Your task to perform on an android device: add a label to a message in the gmail app Image 0: 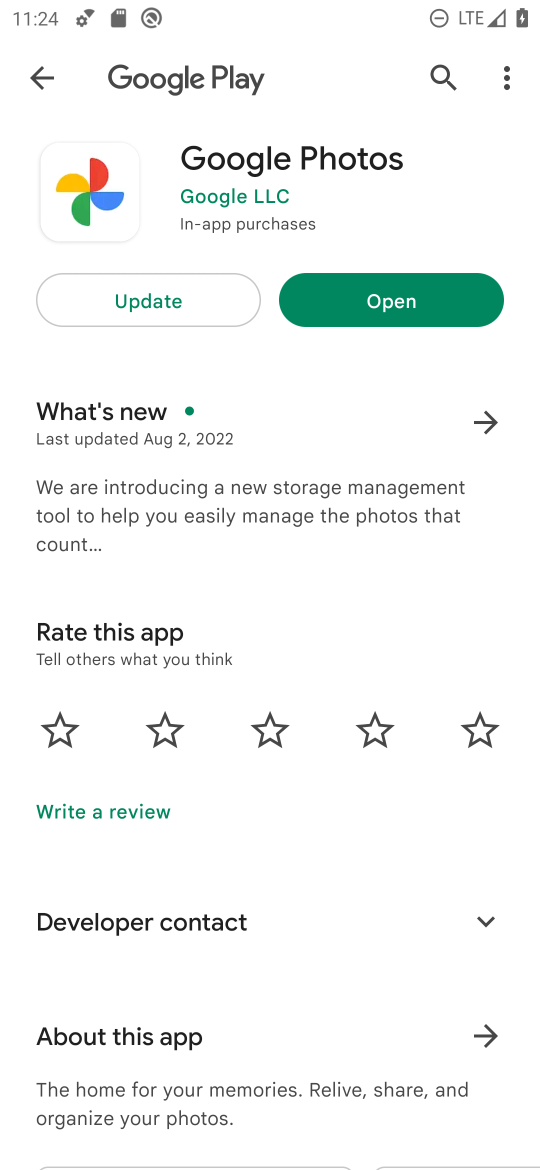
Step 0: press home button
Your task to perform on an android device: add a label to a message in the gmail app Image 1: 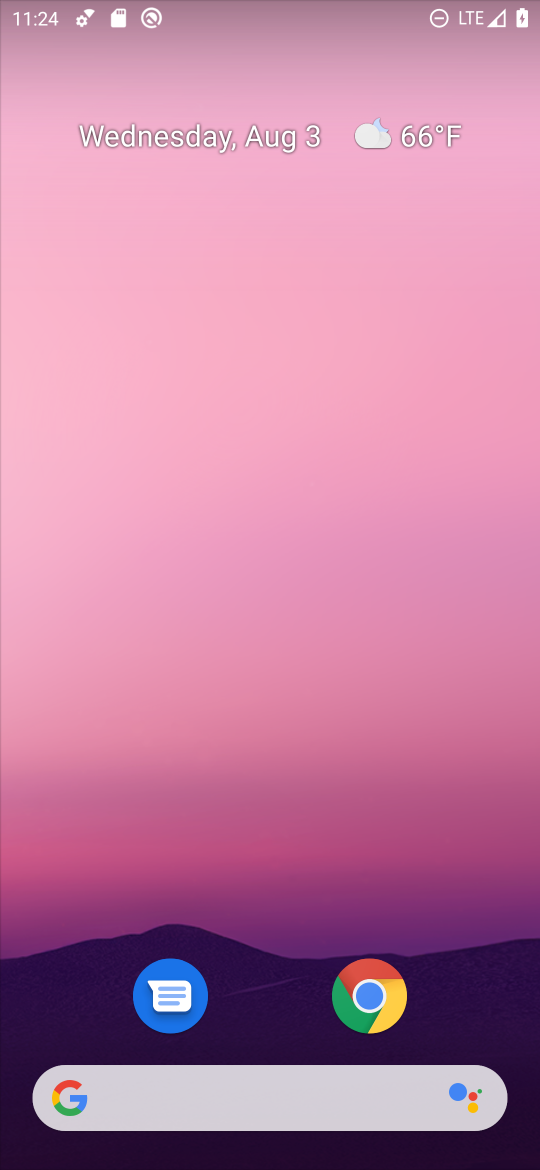
Step 1: drag from (275, 909) to (234, 2)
Your task to perform on an android device: add a label to a message in the gmail app Image 2: 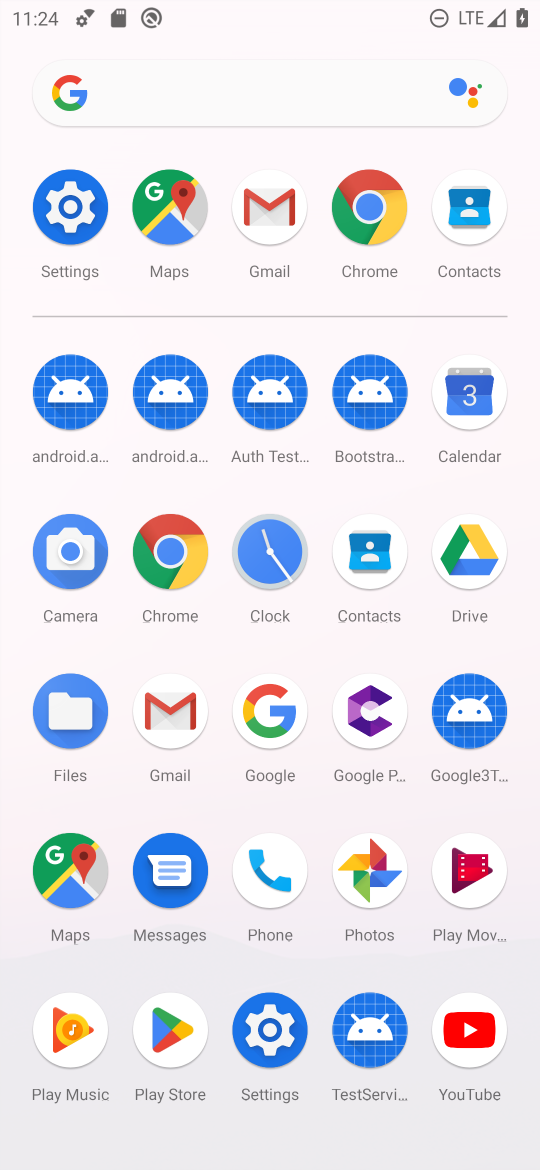
Step 2: click (262, 200)
Your task to perform on an android device: add a label to a message in the gmail app Image 3: 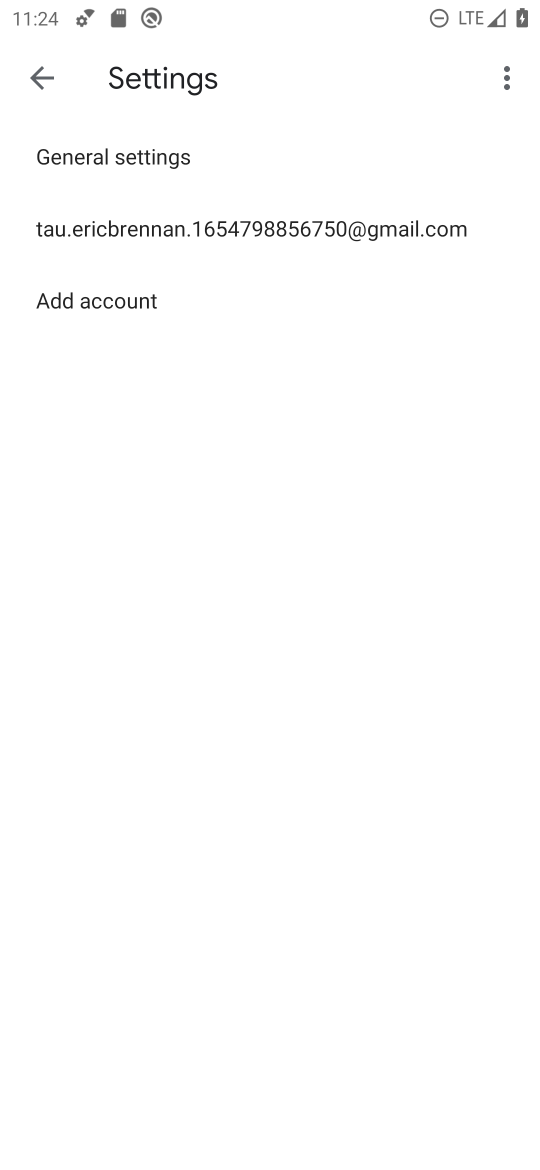
Step 3: click (42, 74)
Your task to perform on an android device: add a label to a message in the gmail app Image 4: 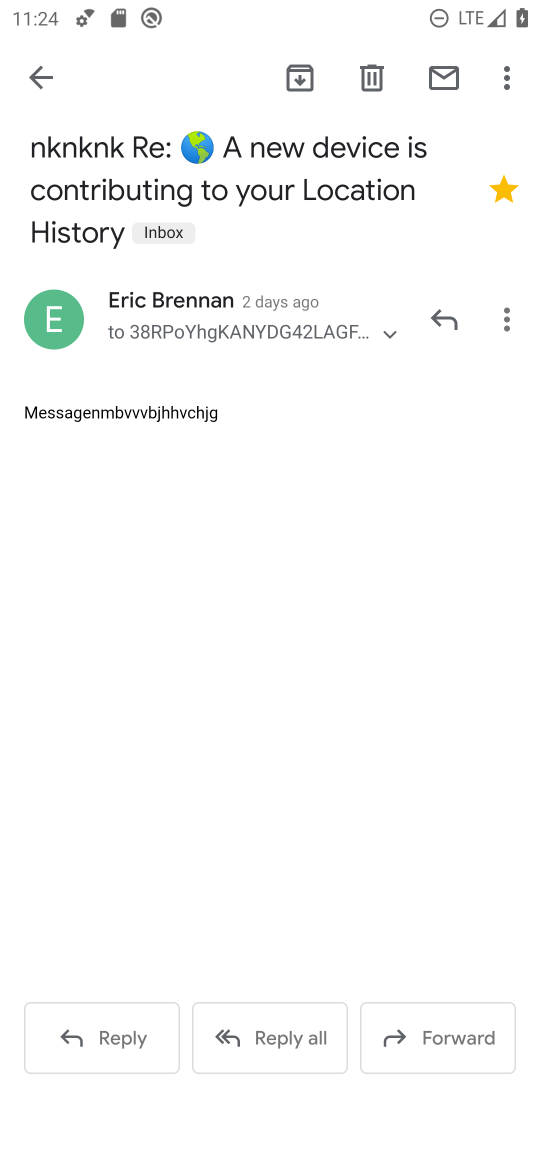
Step 4: click (500, 77)
Your task to perform on an android device: add a label to a message in the gmail app Image 5: 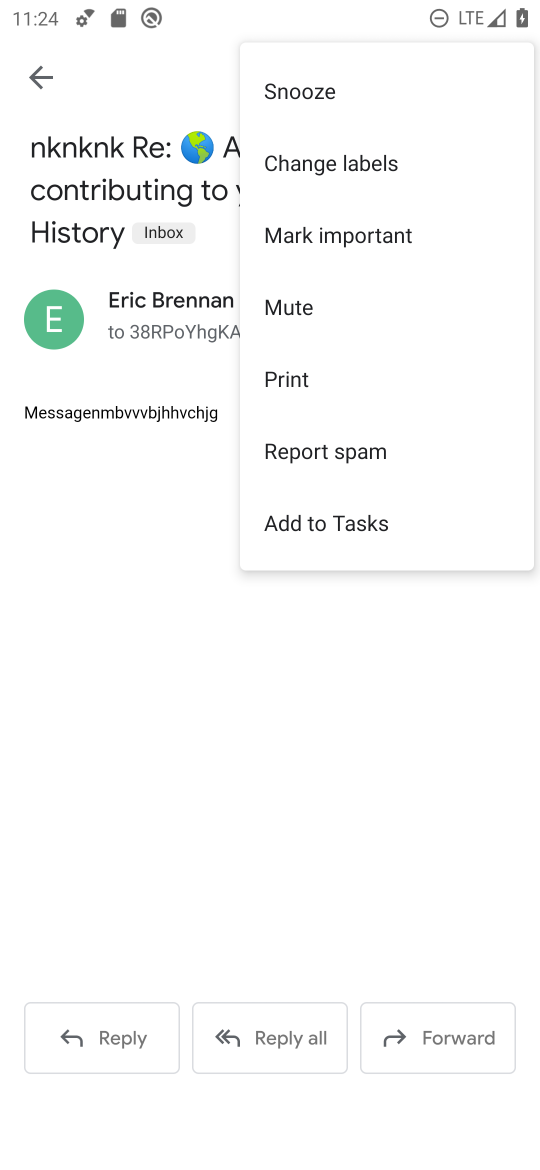
Step 5: click (339, 224)
Your task to perform on an android device: add a label to a message in the gmail app Image 6: 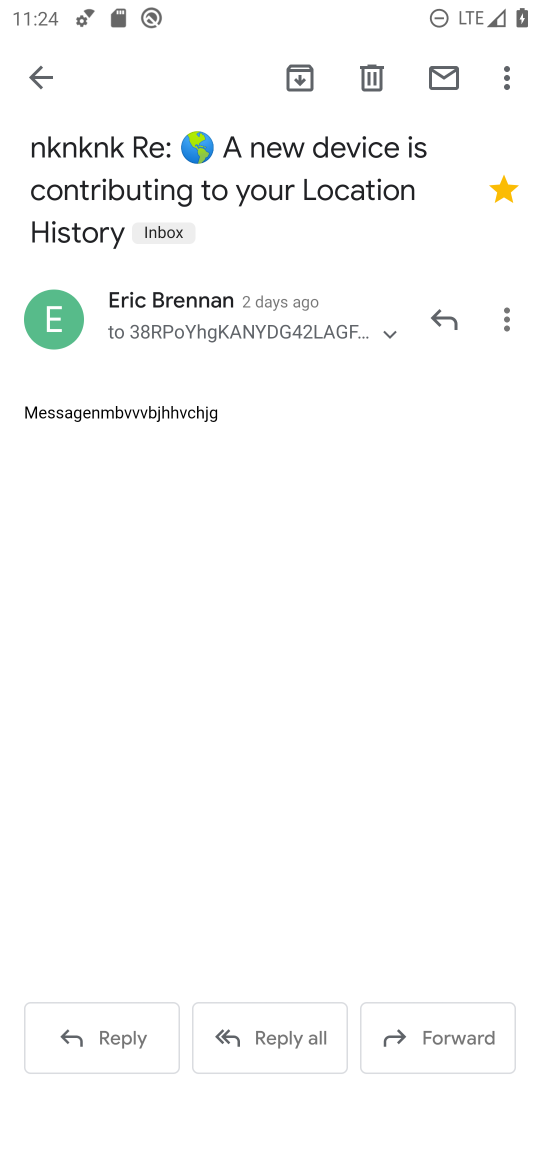
Step 6: task complete